Your task to perform on an android device: Go to Google Image 0: 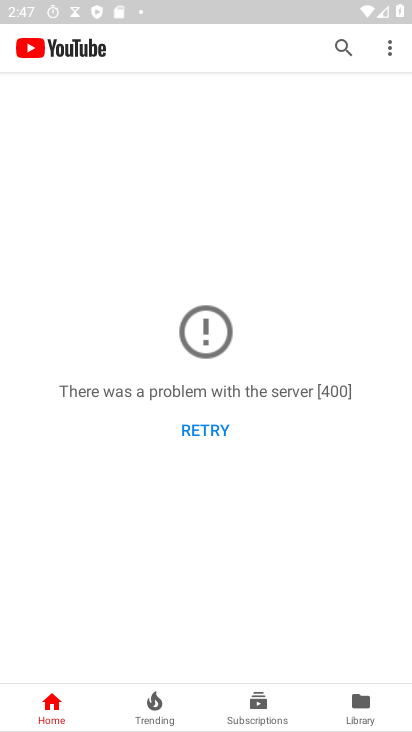
Step 0: press back button
Your task to perform on an android device: Go to Google Image 1: 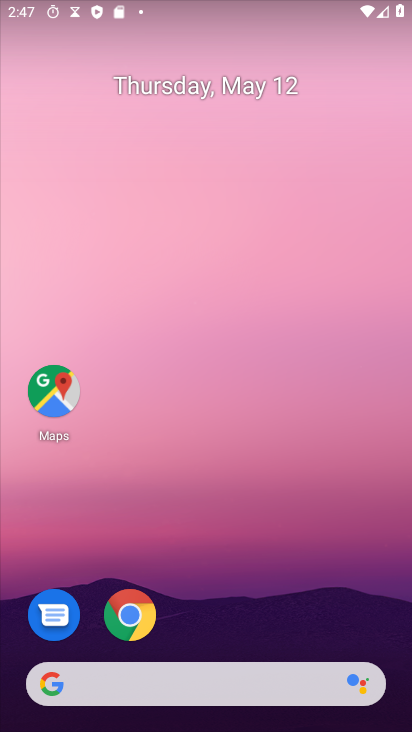
Step 1: click (52, 687)
Your task to perform on an android device: Go to Google Image 2: 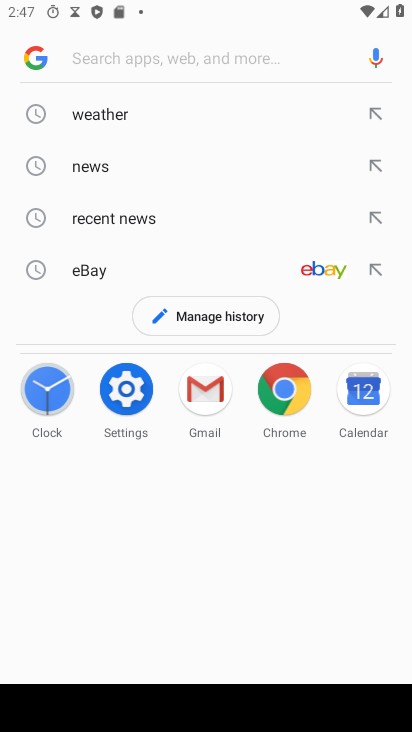
Step 2: click (42, 58)
Your task to perform on an android device: Go to Google Image 3: 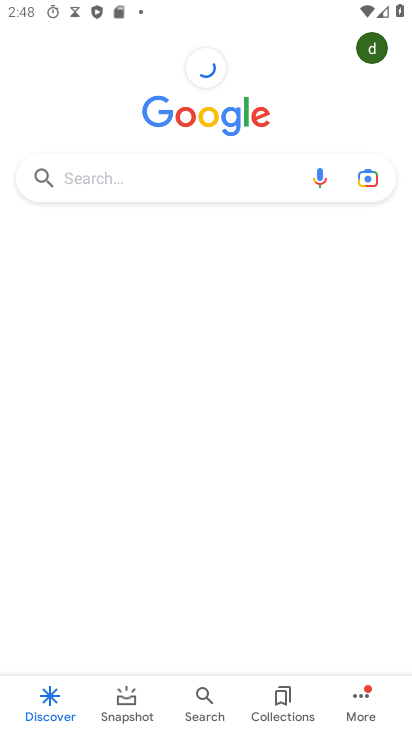
Step 3: task complete